Your task to perform on an android device: toggle javascript in the chrome app Image 0: 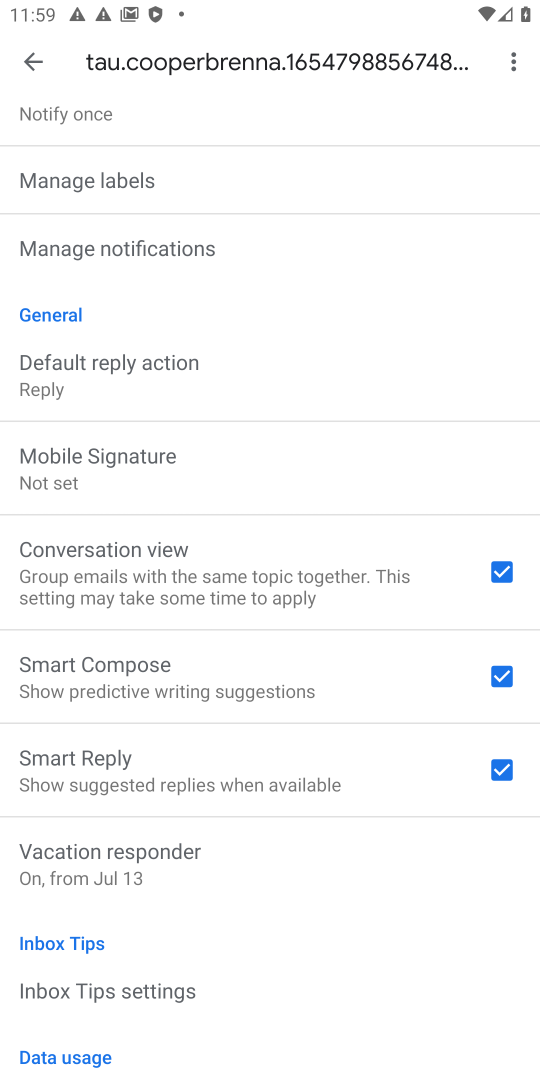
Step 0: press home button
Your task to perform on an android device: toggle javascript in the chrome app Image 1: 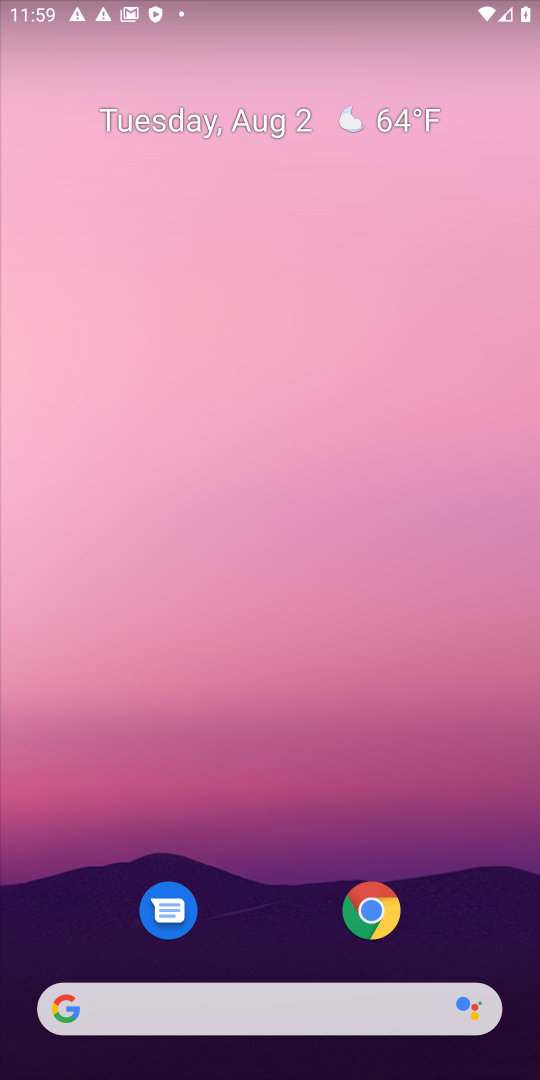
Step 1: click (381, 916)
Your task to perform on an android device: toggle javascript in the chrome app Image 2: 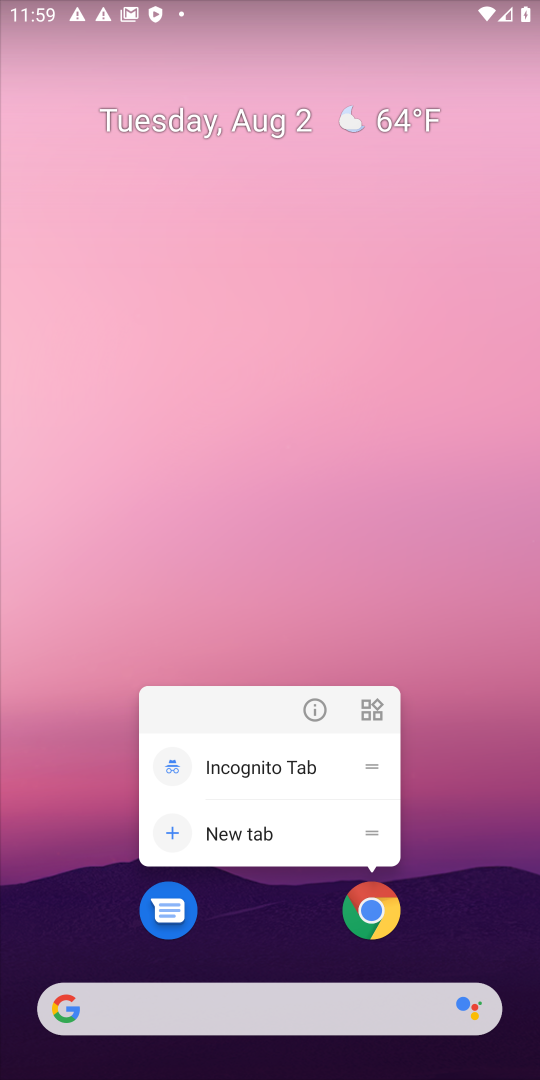
Step 2: click (361, 918)
Your task to perform on an android device: toggle javascript in the chrome app Image 3: 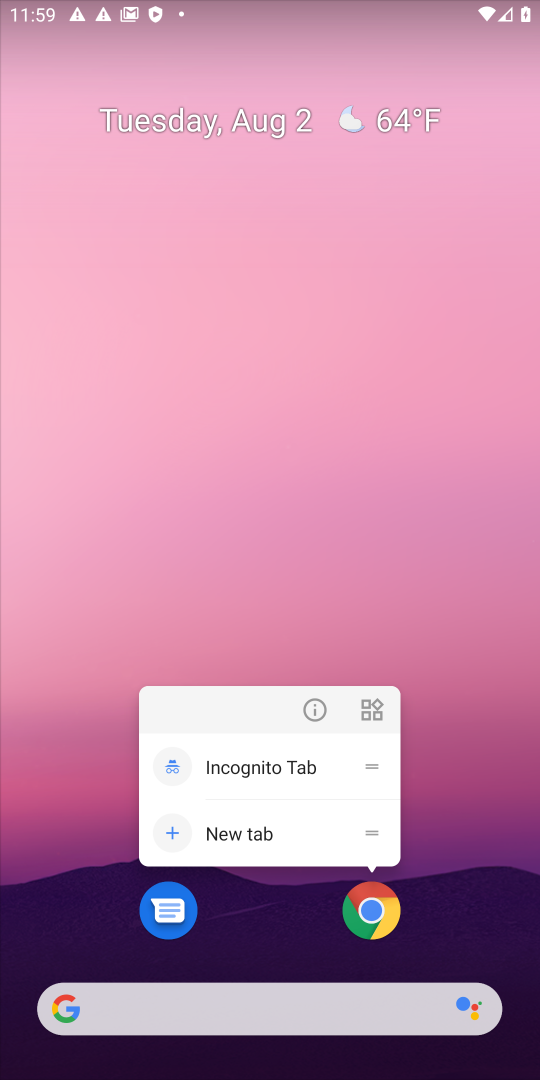
Step 3: click (375, 914)
Your task to perform on an android device: toggle javascript in the chrome app Image 4: 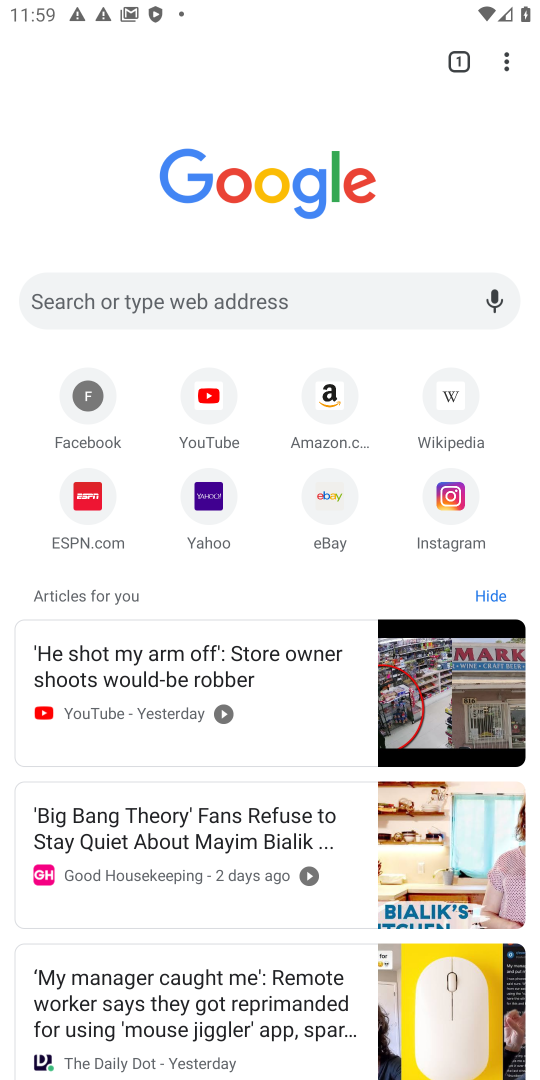
Step 4: click (509, 70)
Your task to perform on an android device: toggle javascript in the chrome app Image 5: 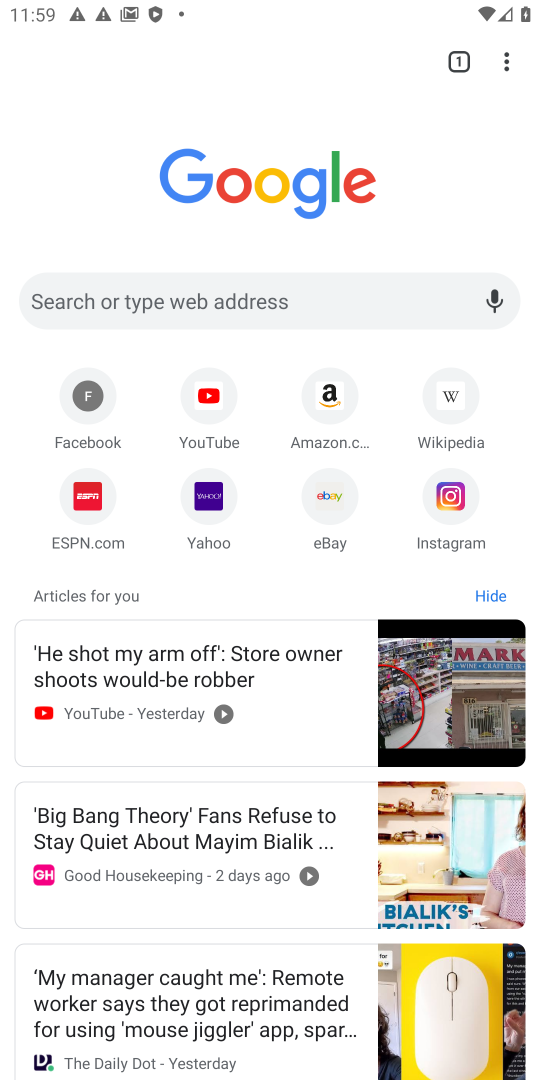
Step 5: click (511, 66)
Your task to perform on an android device: toggle javascript in the chrome app Image 6: 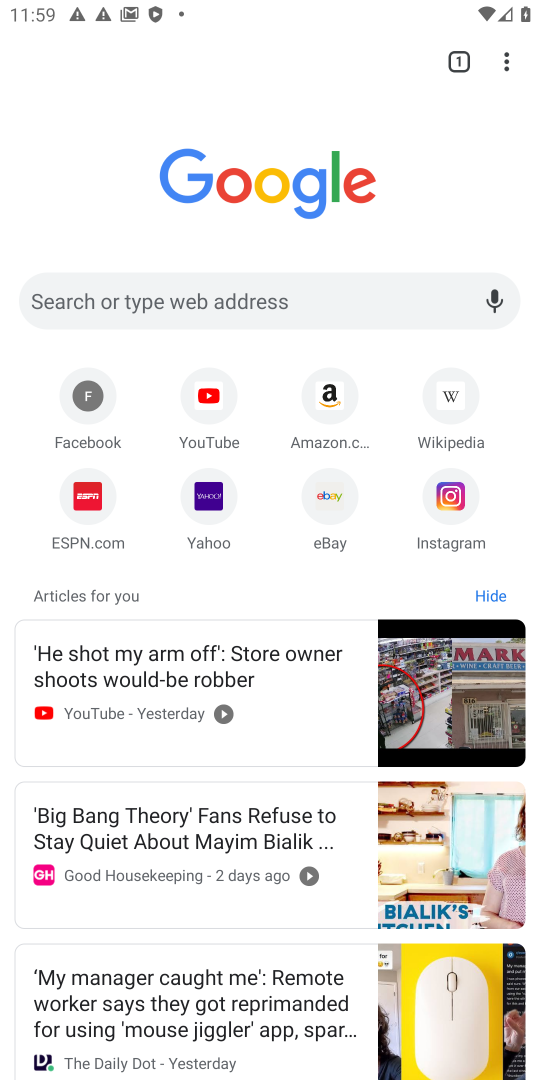
Step 6: drag from (511, 61) to (272, 524)
Your task to perform on an android device: toggle javascript in the chrome app Image 7: 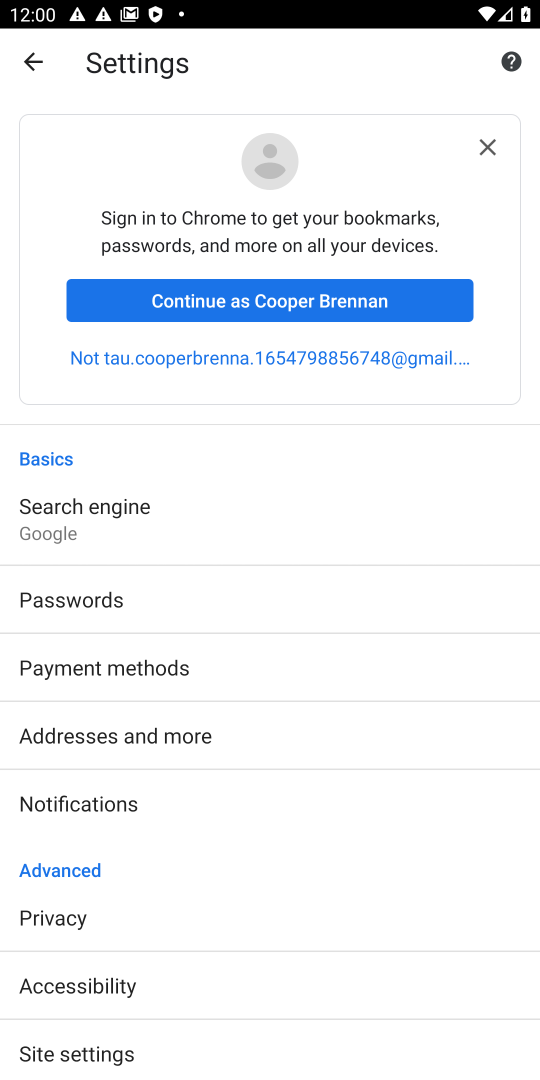
Step 7: click (134, 1055)
Your task to perform on an android device: toggle javascript in the chrome app Image 8: 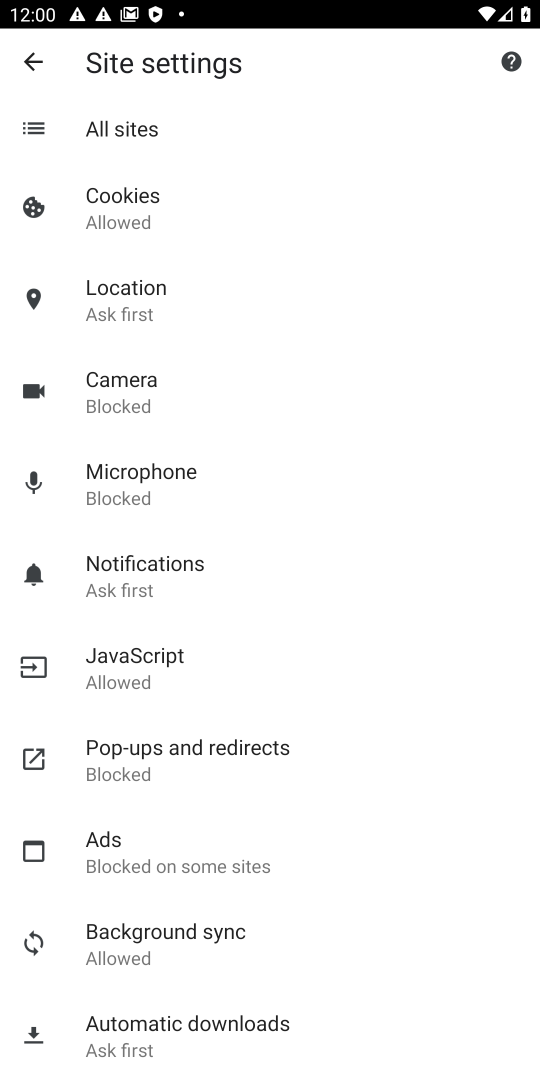
Step 8: click (123, 668)
Your task to perform on an android device: toggle javascript in the chrome app Image 9: 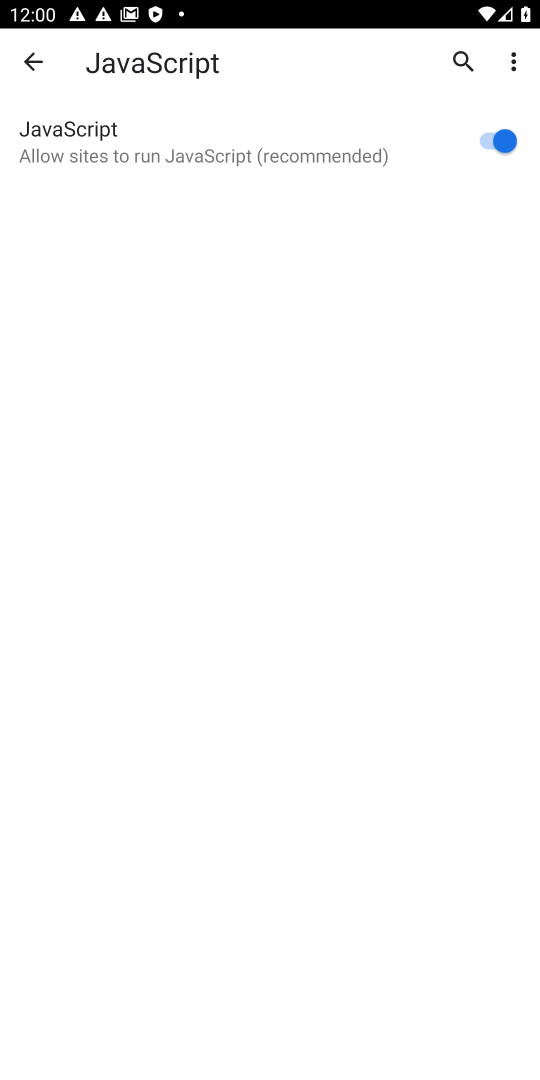
Step 9: click (492, 128)
Your task to perform on an android device: toggle javascript in the chrome app Image 10: 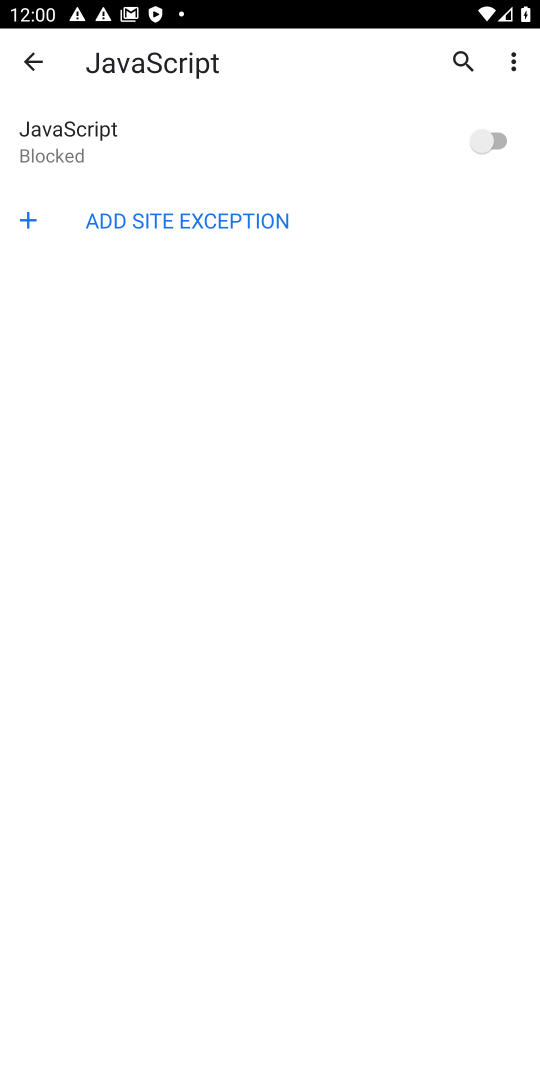
Step 10: task complete